Your task to perform on an android device: open a bookmark in the chrome app Image 0: 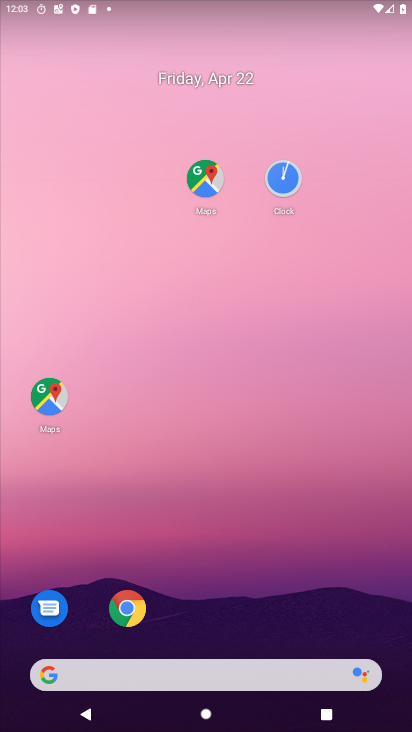
Step 0: drag from (301, 710) to (198, 97)
Your task to perform on an android device: open a bookmark in the chrome app Image 1: 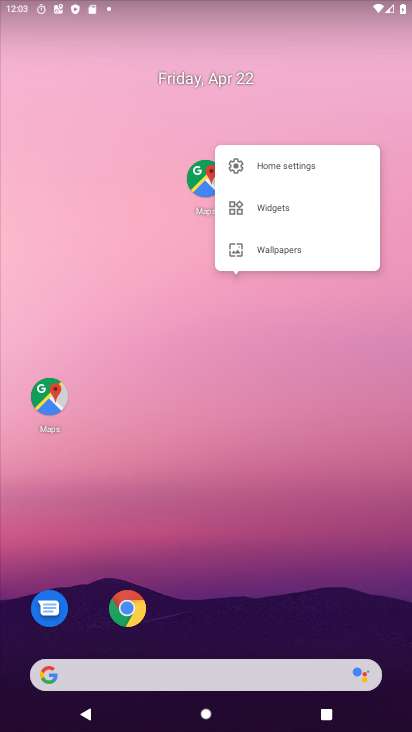
Step 1: drag from (274, 675) to (136, 161)
Your task to perform on an android device: open a bookmark in the chrome app Image 2: 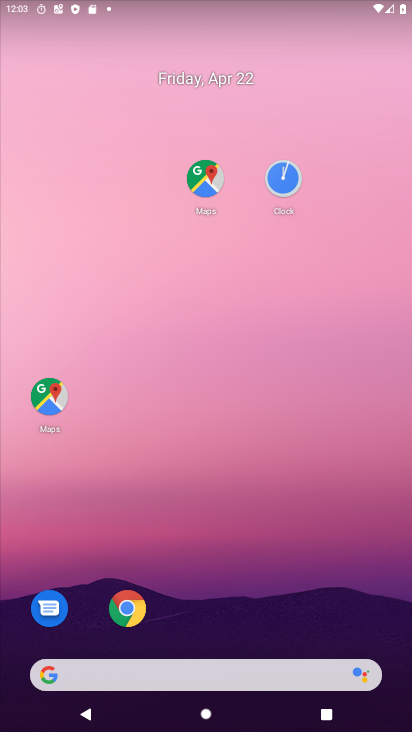
Step 2: drag from (230, 497) to (138, 230)
Your task to perform on an android device: open a bookmark in the chrome app Image 3: 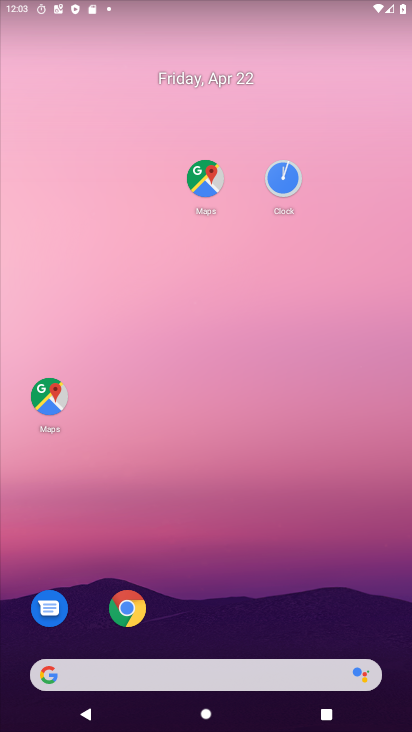
Step 3: drag from (319, 569) to (250, 187)
Your task to perform on an android device: open a bookmark in the chrome app Image 4: 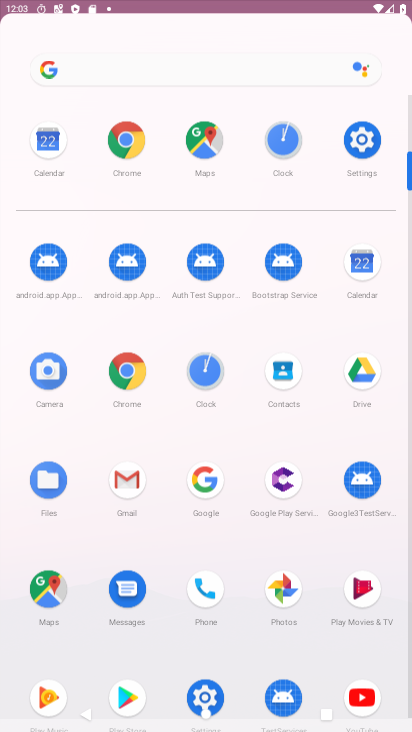
Step 4: drag from (276, 326) to (182, 86)
Your task to perform on an android device: open a bookmark in the chrome app Image 5: 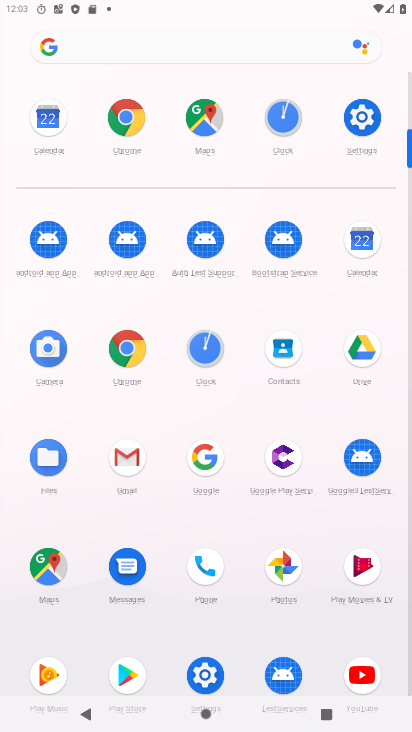
Step 5: click (118, 116)
Your task to perform on an android device: open a bookmark in the chrome app Image 6: 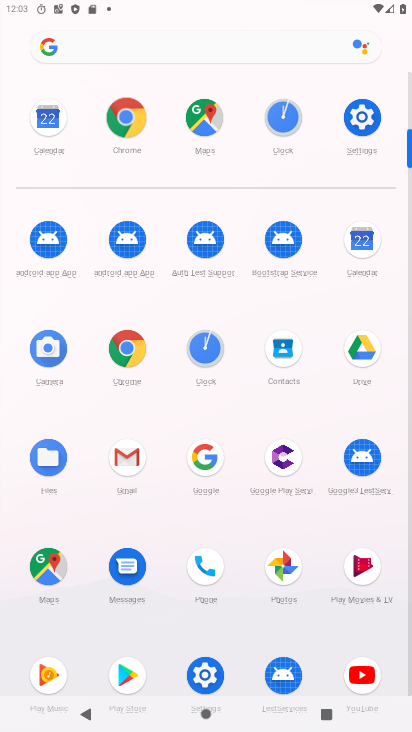
Step 6: click (118, 116)
Your task to perform on an android device: open a bookmark in the chrome app Image 7: 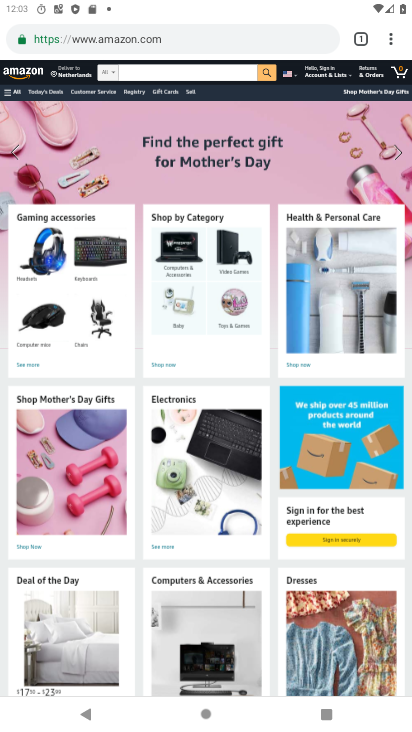
Step 7: drag from (391, 35) to (255, 282)
Your task to perform on an android device: open a bookmark in the chrome app Image 8: 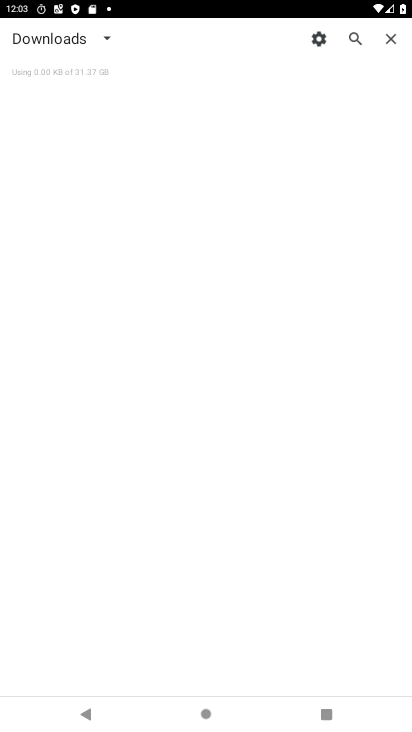
Step 8: press home button
Your task to perform on an android device: open a bookmark in the chrome app Image 9: 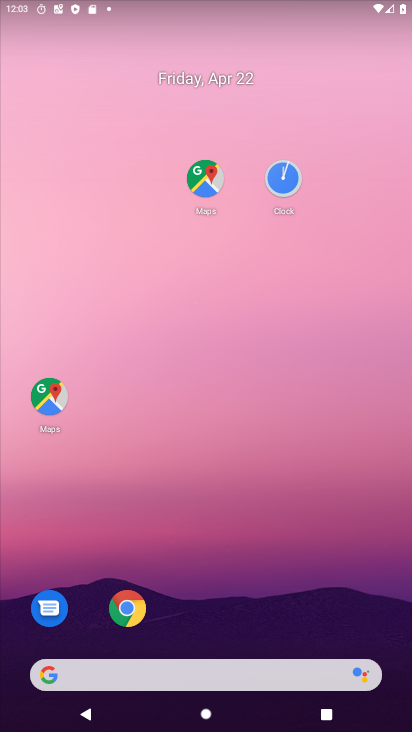
Step 9: drag from (277, 707) to (275, 143)
Your task to perform on an android device: open a bookmark in the chrome app Image 10: 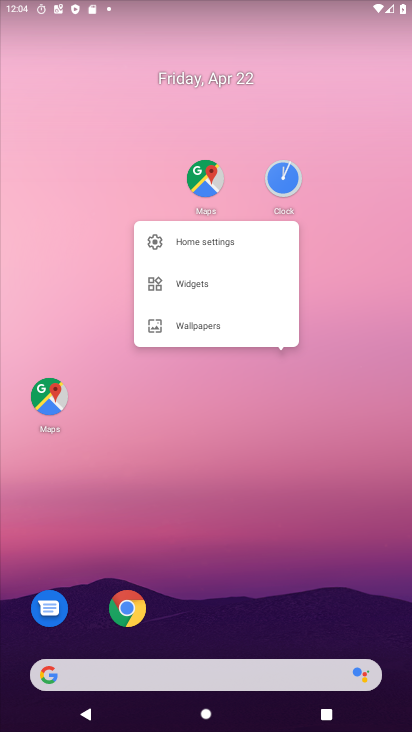
Step 10: drag from (264, 661) to (238, 225)
Your task to perform on an android device: open a bookmark in the chrome app Image 11: 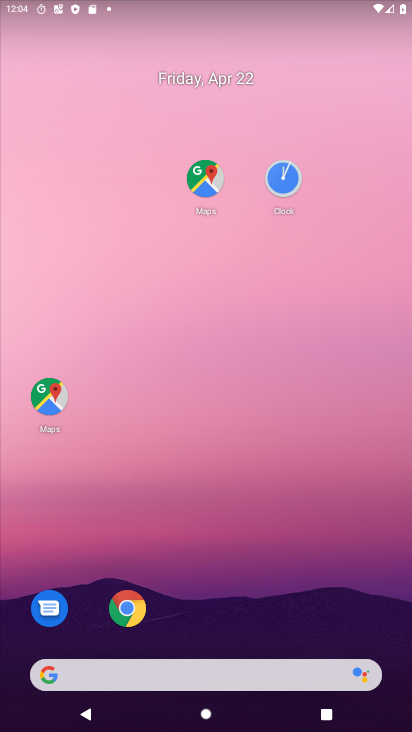
Step 11: drag from (291, 553) to (256, 252)
Your task to perform on an android device: open a bookmark in the chrome app Image 12: 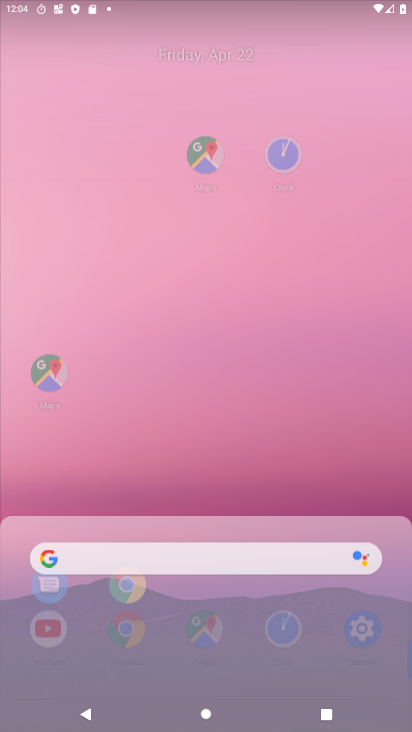
Step 12: drag from (276, 491) to (203, 96)
Your task to perform on an android device: open a bookmark in the chrome app Image 13: 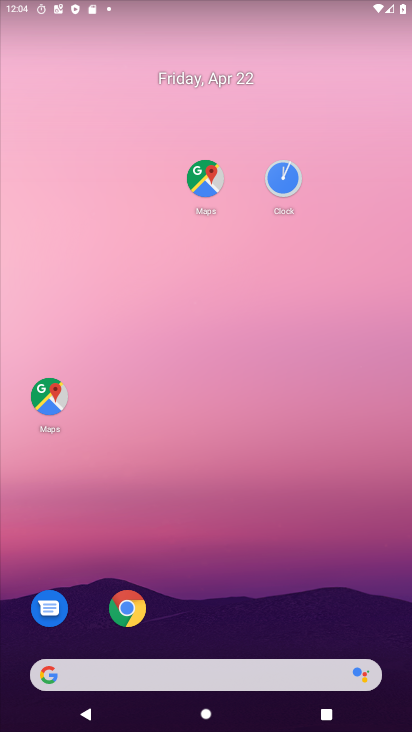
Step 13: drag from (184, 390) to (130, 150)
Your task to perform on an android device: open a bookmark in the chrome app Image 14: 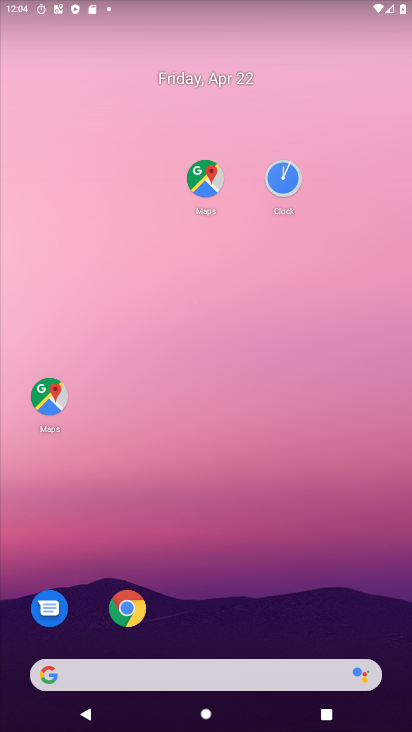
Step 14: drag from (273, 685) to (217, 214)
Your task to perform on an android device: open a bookmark in the chrome app Image 15: 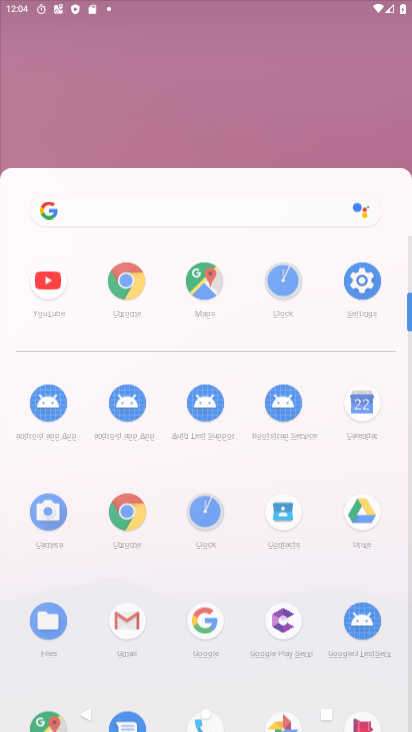
Step 15: drag from (309, 628) to (247, 187)
Your task to perform on an android device: open a bookmark in the chrome app Image 16: 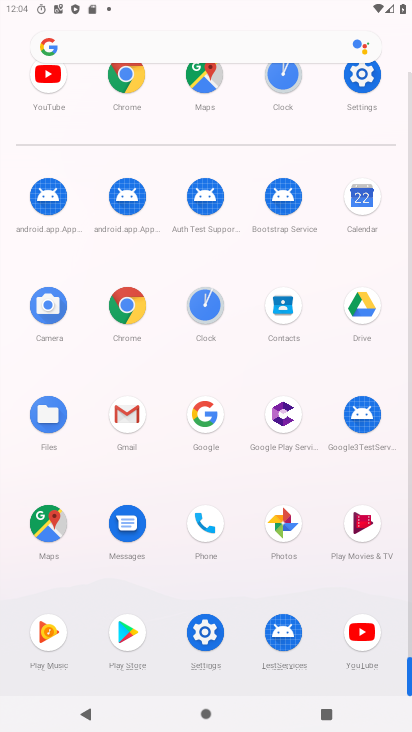
Step 16: click (123, 315)
Your task to perform on an android device: open a bookmark in the chrome app Image 17: 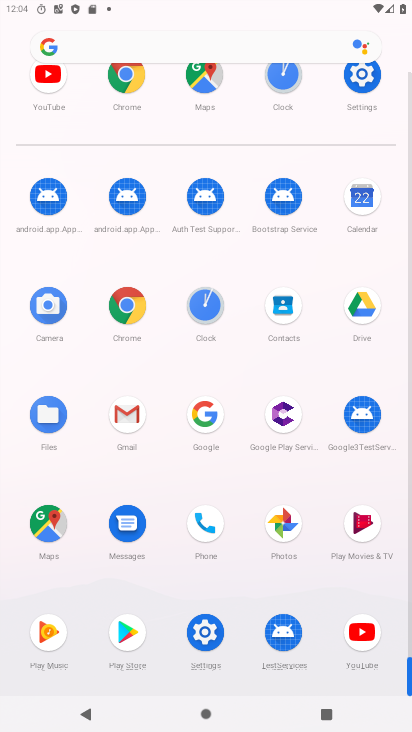
Step 17: click (123, 315)
Your task to perform on an android device: open a bookmark in the chrome app Image 18: 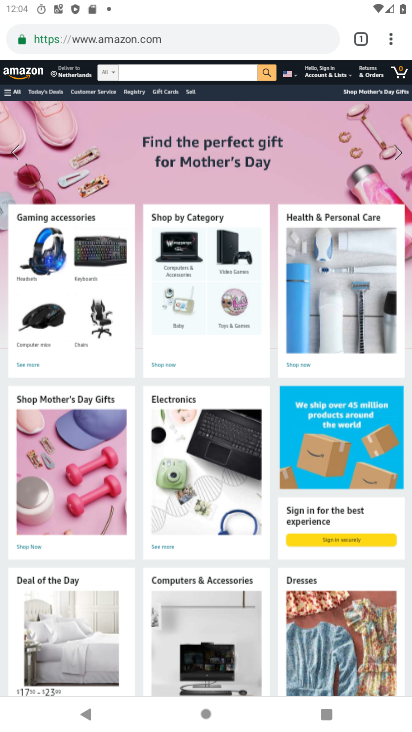
Step 18: drag from (389, 35) to (261, 190)
Your task to perform on an android device: open a bookmark in the chrome app Image 19: 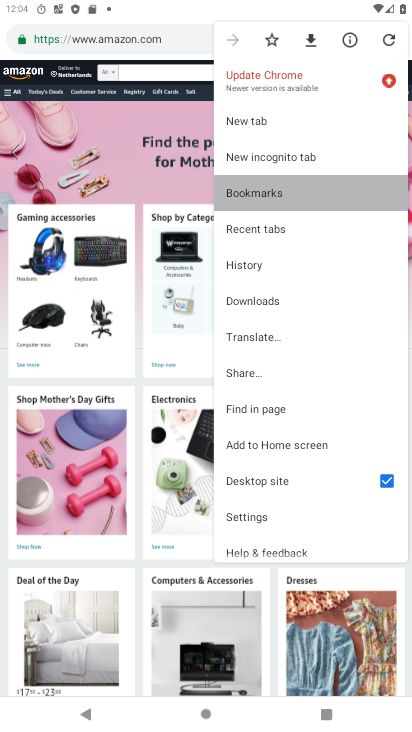
Step 19: click (263, 189)
Your task to perform on an android device: open a bookmark in the chrome app Image 20: 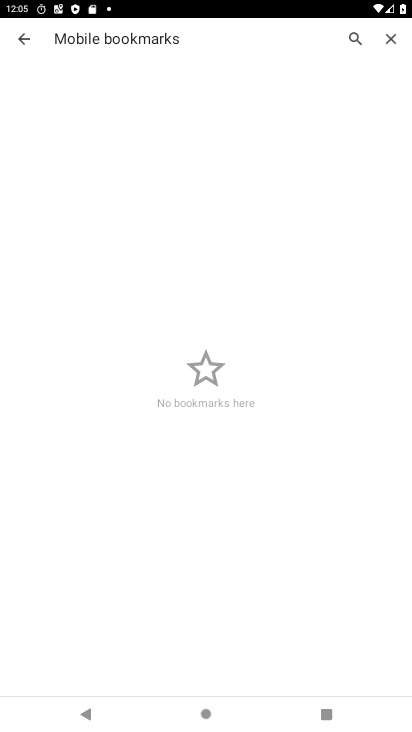
Step 20: task complete